Your task to perform on an android device: Open Google Chrome and click the shortcut for Amazon.com Image 0: 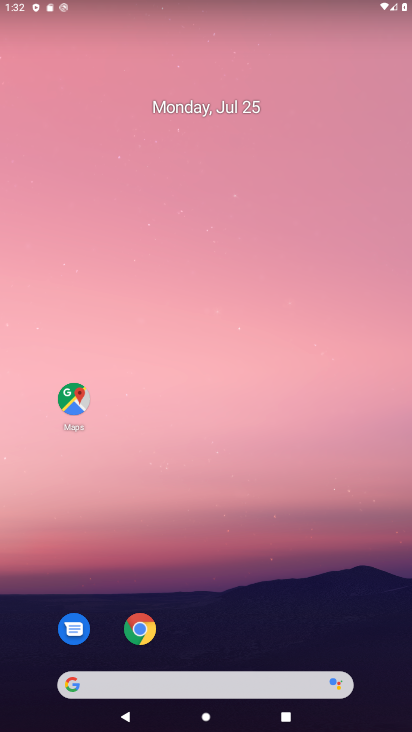
Step 0: drag from (186, 629) to (265, 161)
Your task to perform on an android device: Open Google Chrome and click the shortcut for Amazon.com Image 1: 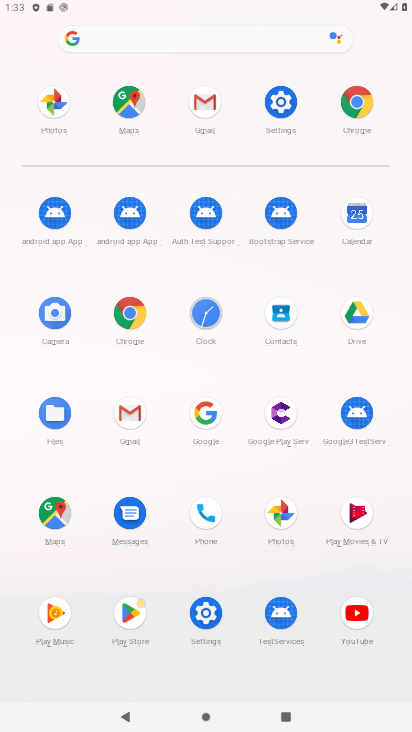
Step 1: drag from (230, 547) to (255, 190)
Your task to perform on an android device: Open Google Chrome and click the shortcut for Amazon.com Image 2: 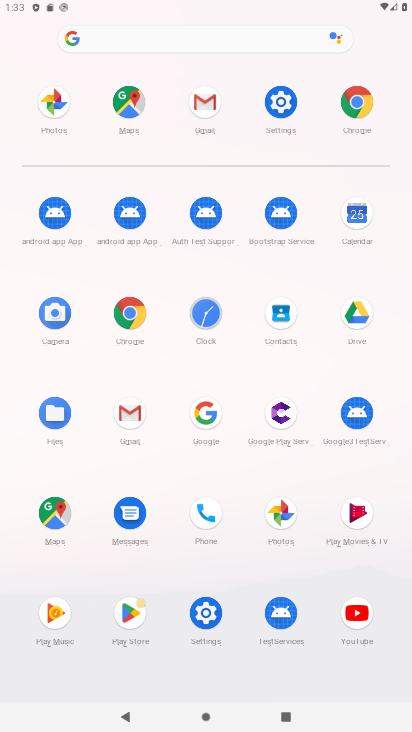
Step 2: click (132, 308)
Your task to perform on an android device: Open Google Chrome and click the shortcut for Amazon.com Image 3: 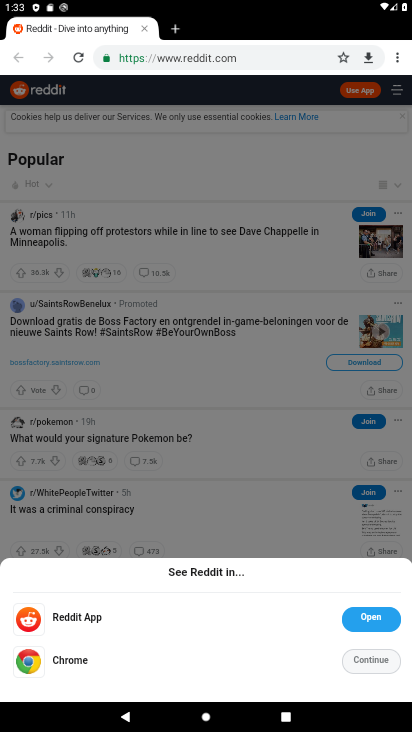
Step 3: drag from (254, 584) to (283, 248)
Your task to perform on an android device: Open Google Chrome and click the shortcut for Amazon.com Image 4: 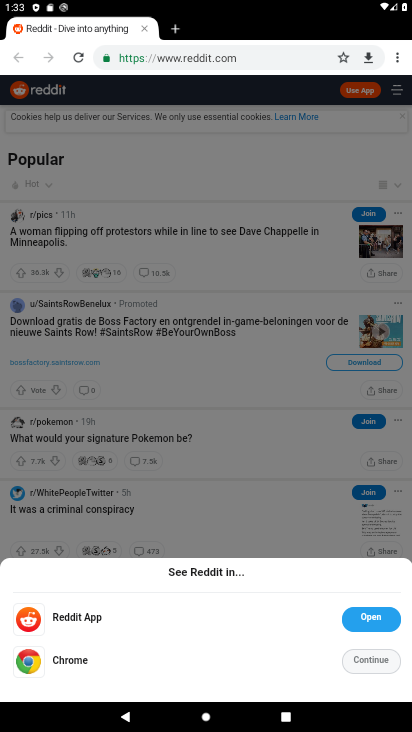
Step 4: drag from (194, 617) to (258, 289)
Your task to perform on an android device: Open Google Chrome and click the shortcut for Amazon.com Image 5: 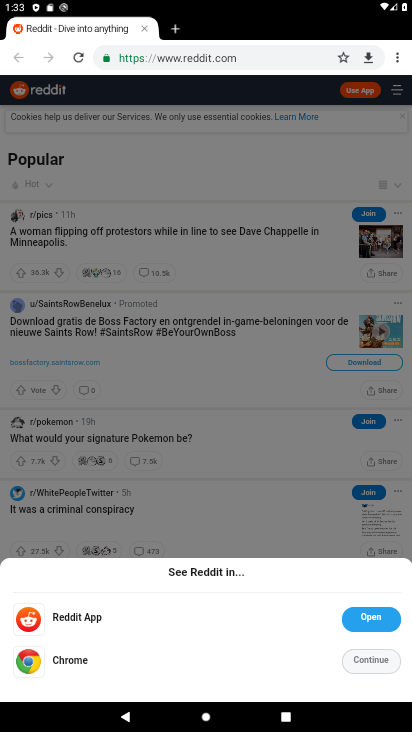
Step 5: click (178, 23)
Your task to perform on an android device: Open Google Chrome and click the shortcut for Amazon.com Image 6: 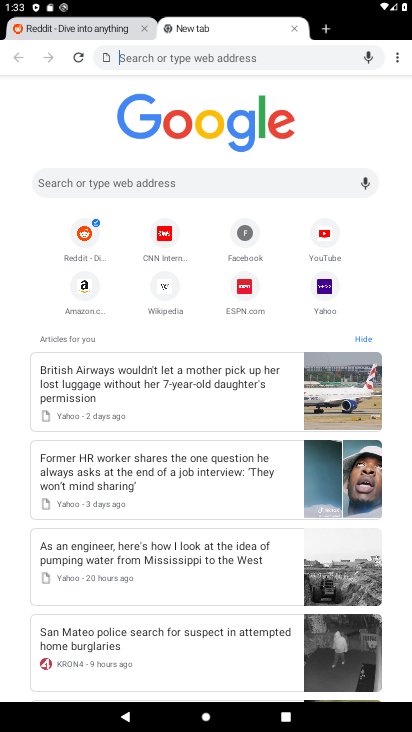
Step 6: click (84, 282)
Your task to perform on an android device: Open Google Chrome and click the shortcut for Amazon.com Image 7: 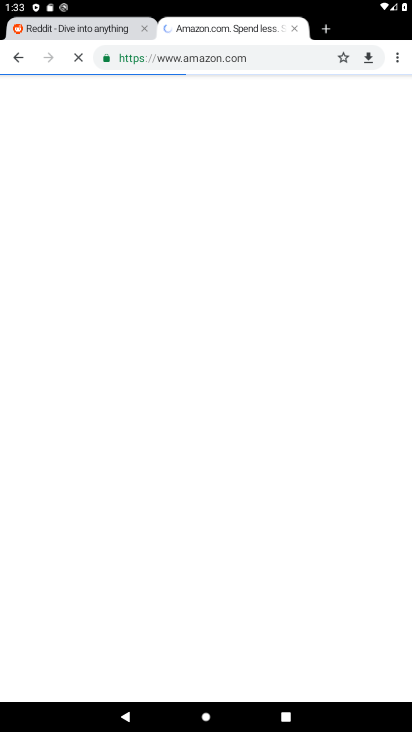
Step 7: task complete